Your task to perform on an android device: Open CNN.com Image 0: 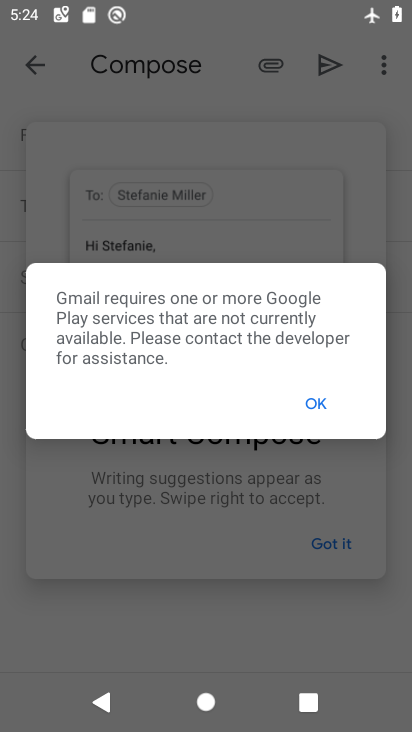
Step 0: press home button
Your task to perform on an android device: Open CNN.com Image 1: 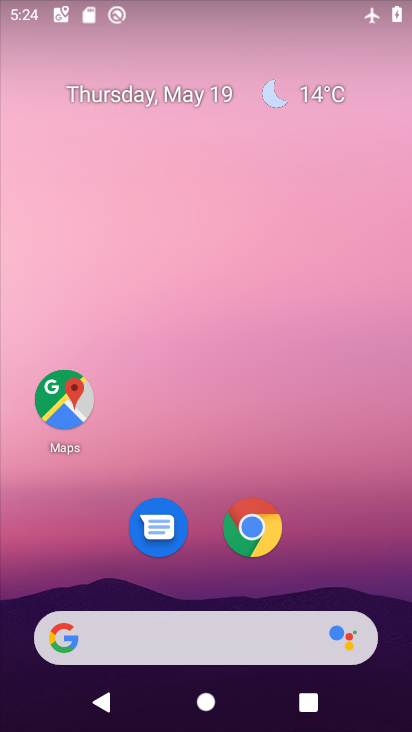
Step 1: click (245, 531)
Your task to perform on an android device: Open CNN.com Image 2: 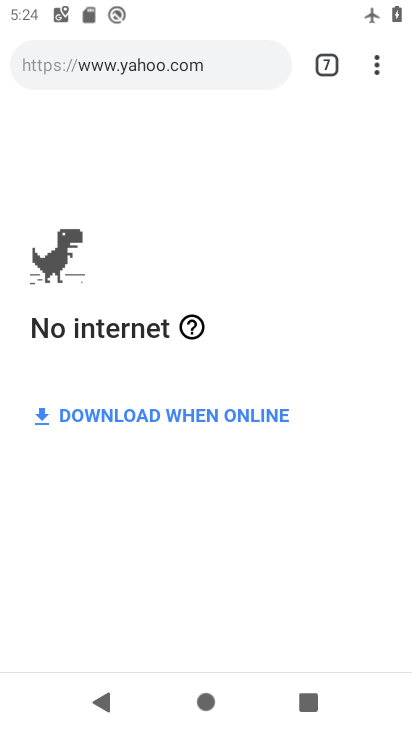
Step 2: click (338, 62)
Your task to perform on an android device: Open CNN.com Image 3: 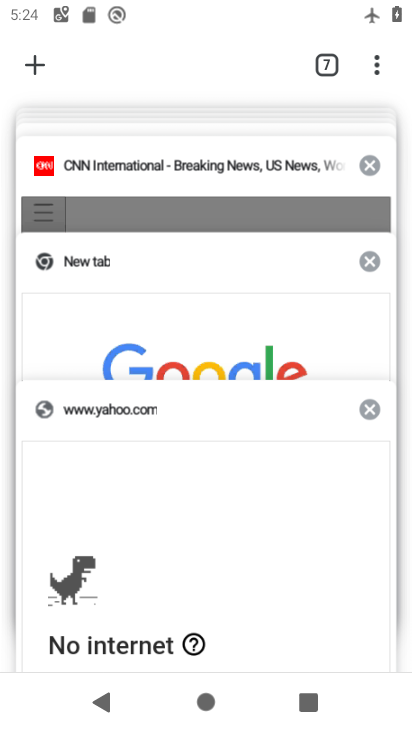
Step 3: click (125, 152)
Your task to perform on an android device: Open CNN.com Image 4: 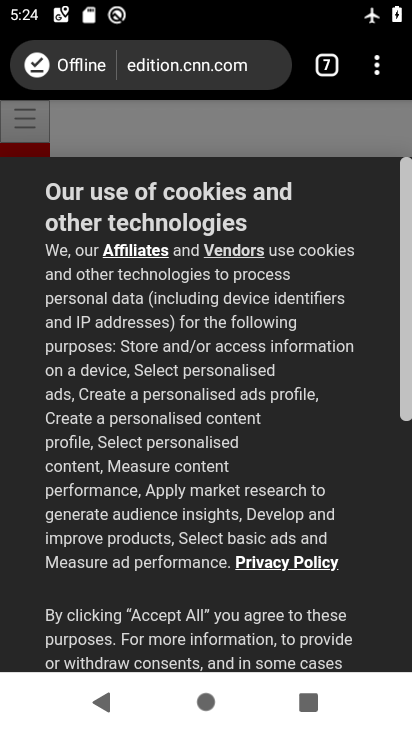
Step 4: task complete